Your task to perform on an android device: install app "Reddit" Image 0: 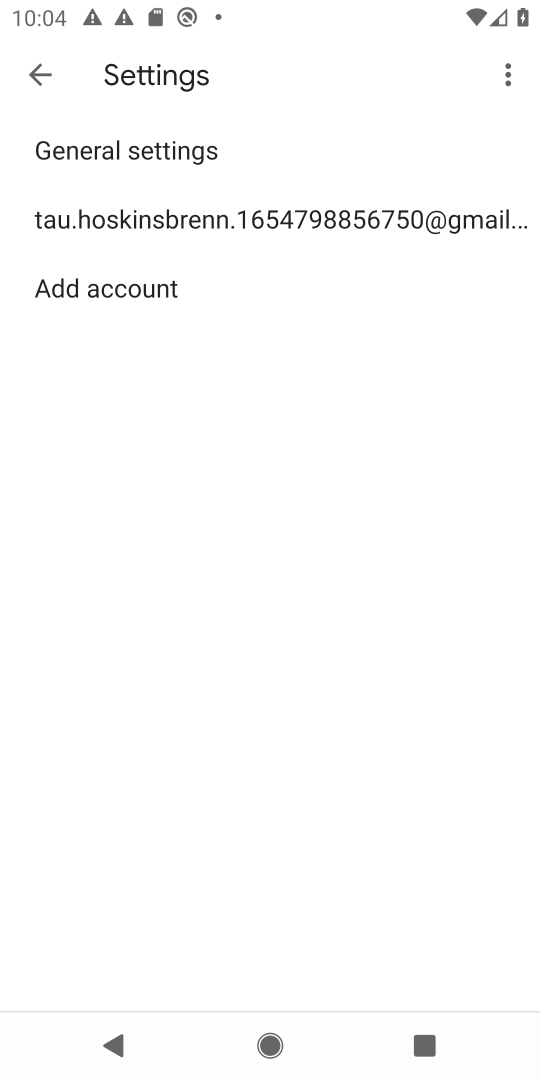
Step 0: press home button
Your task to perform on an android device: install app "Reddit" Image 1: 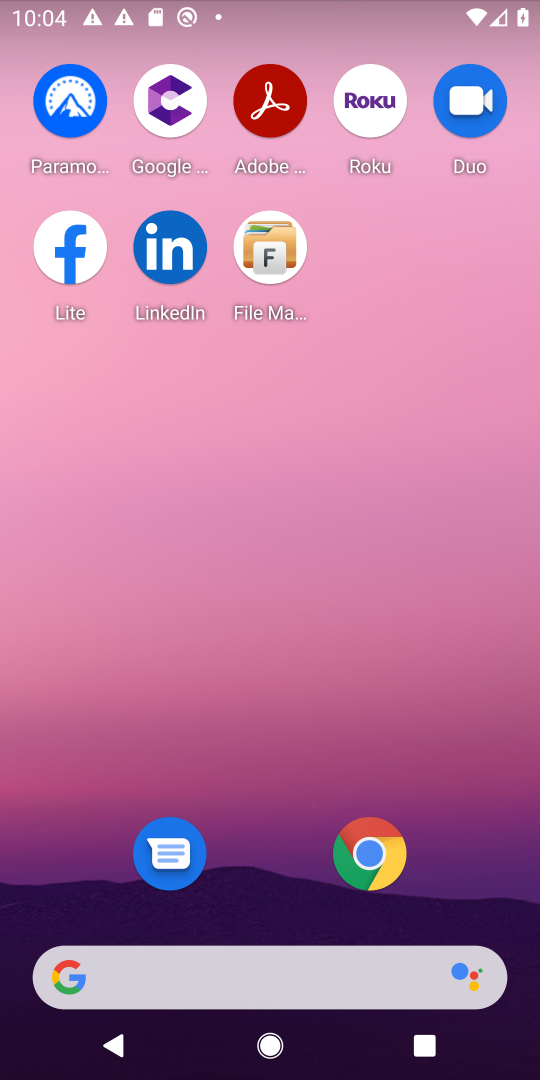
Step 1: drag from (242, 861) to (251, 266)
Your task to perform on an android device: install app "Reddit" Image 2: 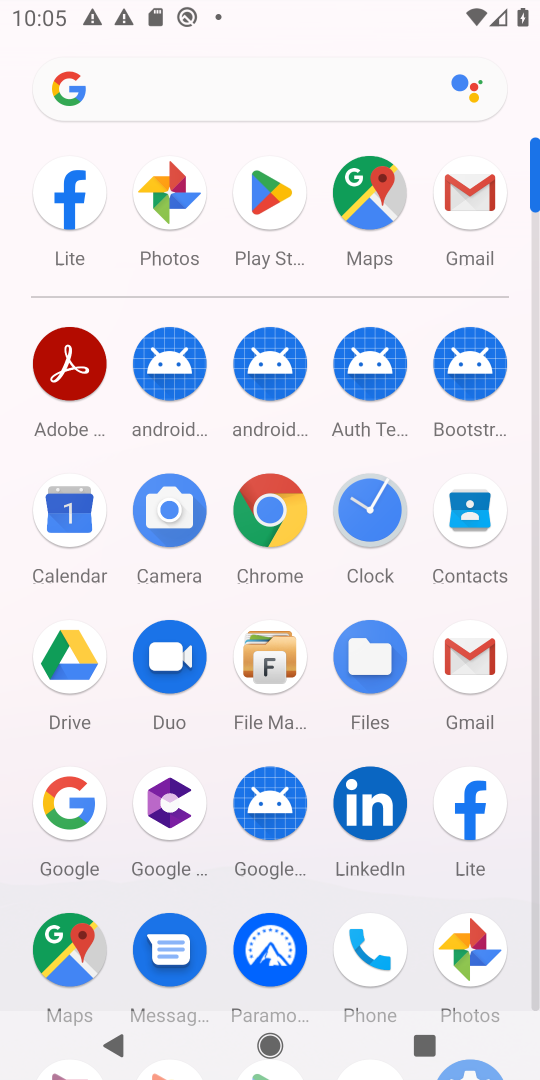
Step 2: drag from (218, 871) to (188, 136)
Your task to perform on an android device: install app "Reddit" Image 3: 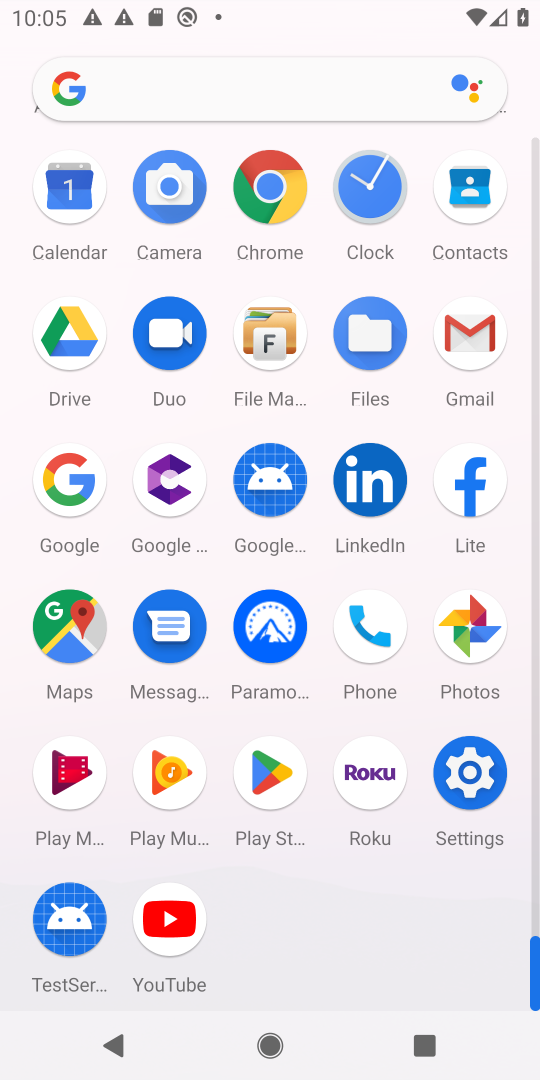
Step 3: click (265, 783)
Your task to perform on an android device: install app "Reddit" Image 4: 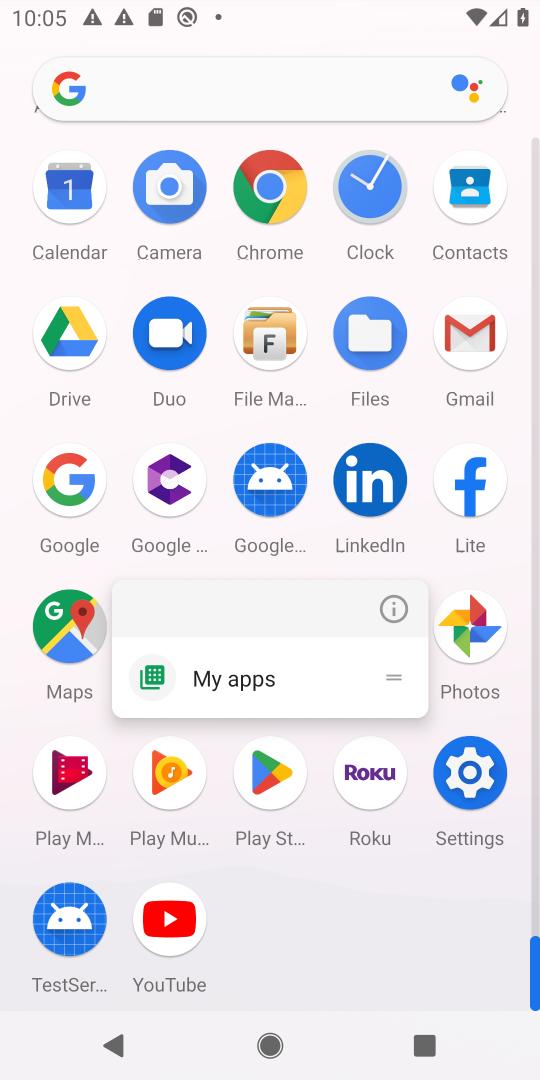
Step 4: click (402, 606)
Your task to perform on an android device: install app "Reddit" Image 5: 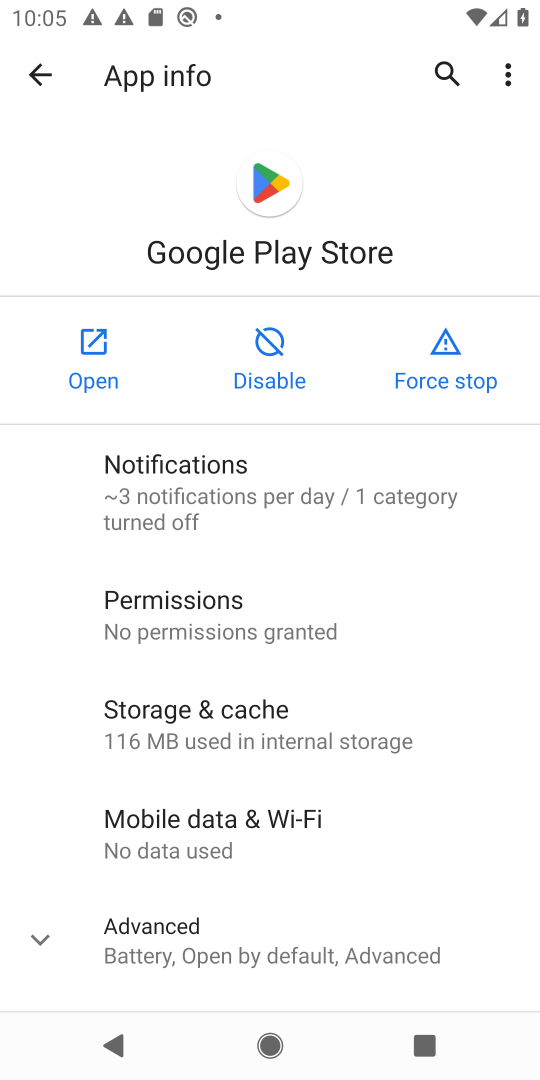
Step 5: click (80, 330)
Your task to perform on an android device: install app "Reddit" Image 6: 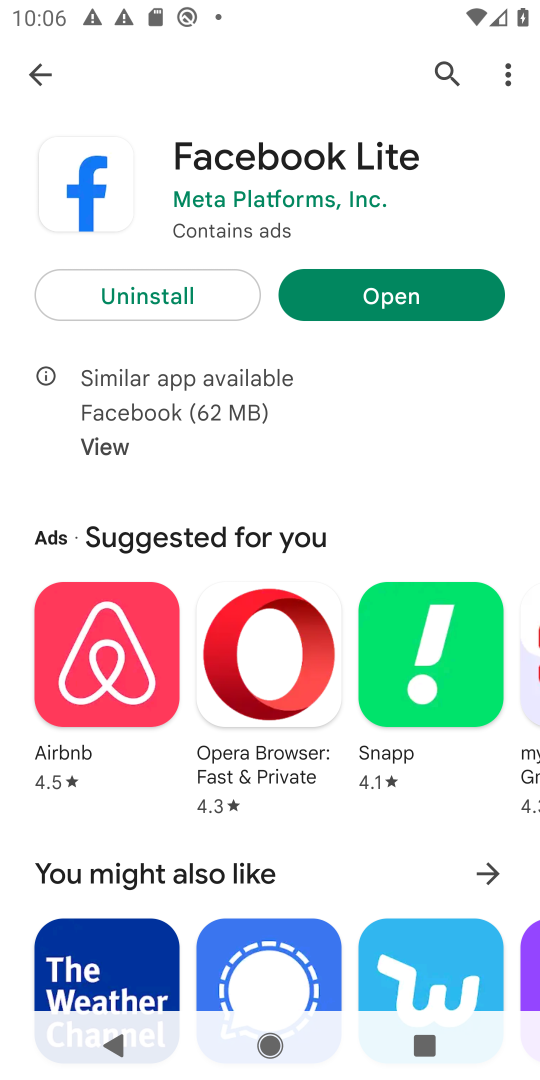
Step 6: drag from (309, 571) to (288, 881)
Your task to perform on an android device: install app "Reddit" Image 7: 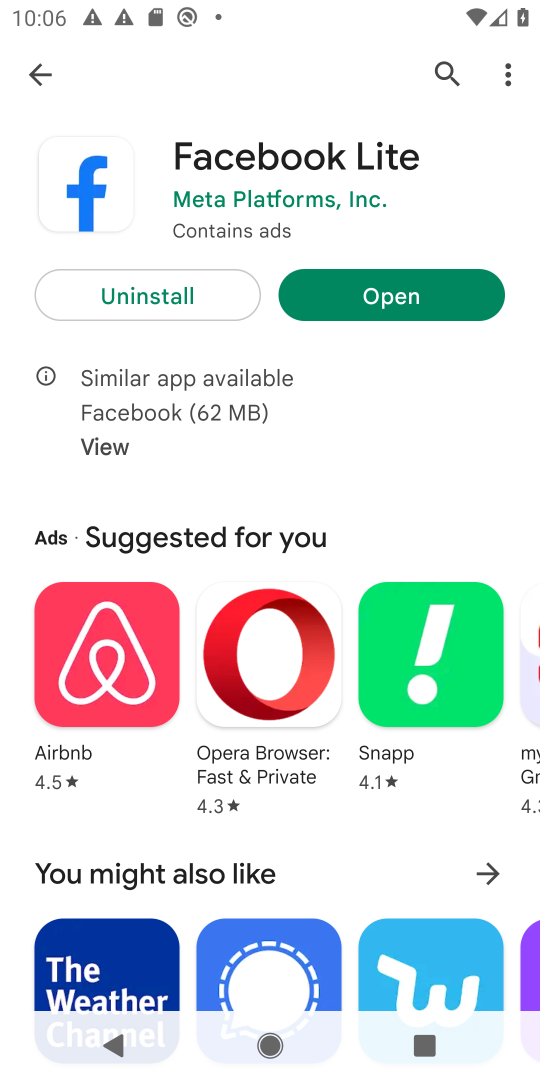
Step 7: click (443, 83)
Your task to perform on an android device: install app "Reddit" Image 8: 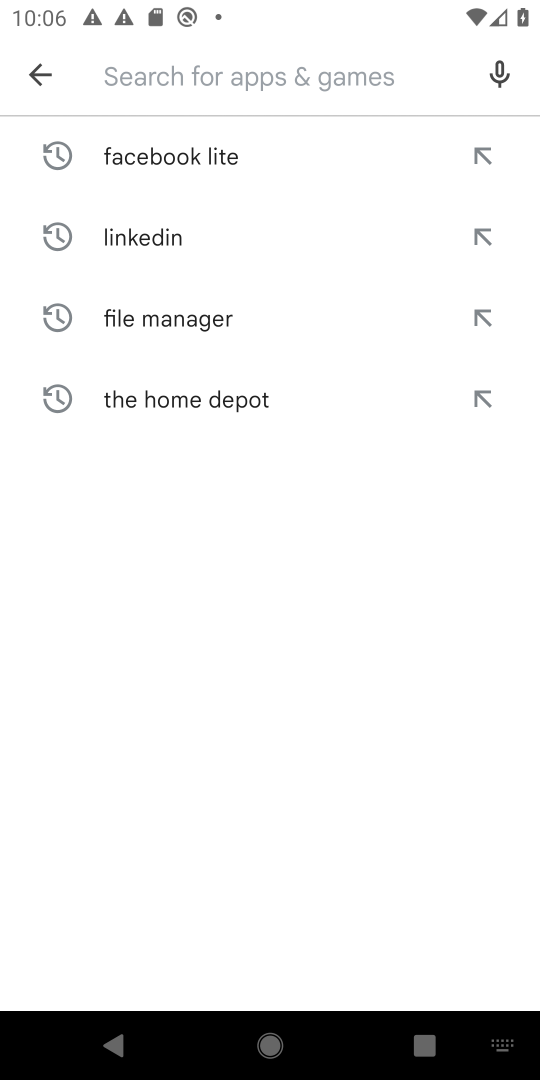
Step 8: click (186, 87)
Your task to perform on an android device: install app "Reddit" Image 9: 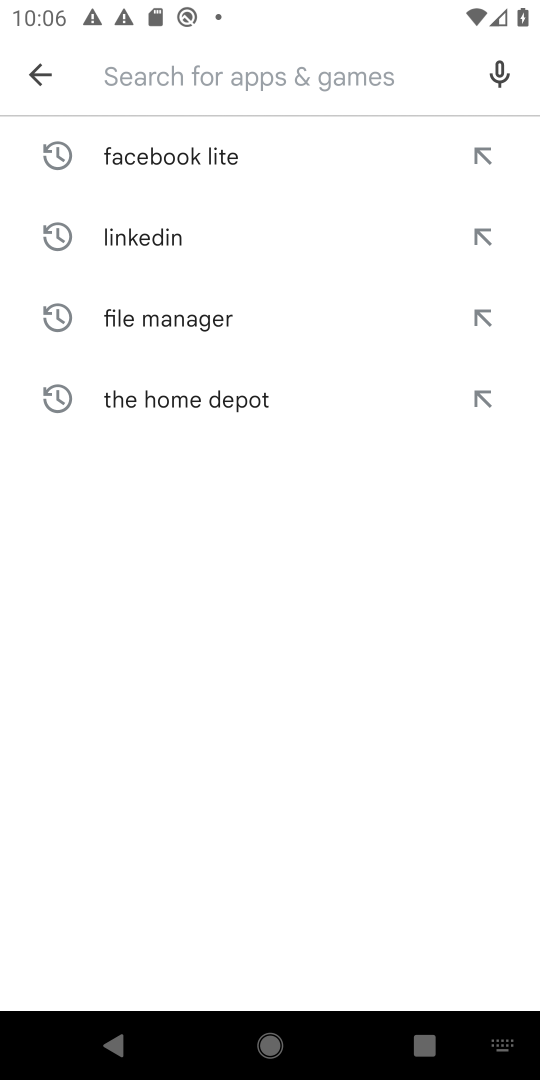
Step 9: type "Reddit"
Your task to perform on an android device: install app "Reddit" Image 10: 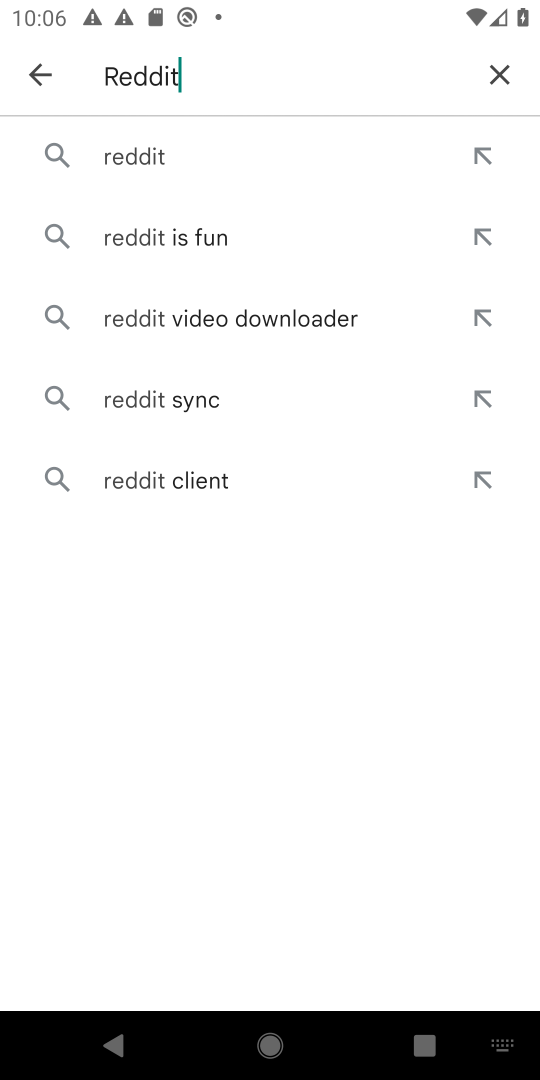
Step 10: click (155, 142)
Your task to perform on an android device: install app "Reddit" Image 11: 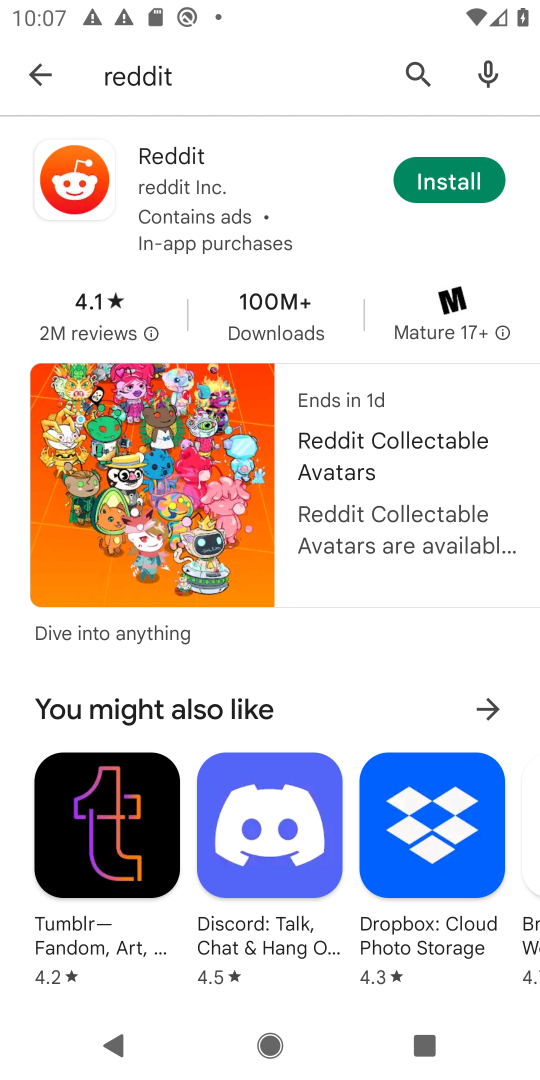
Step 11: click (458, 199)
Your task to perform on an android device: install app "Reddit" Image 12: 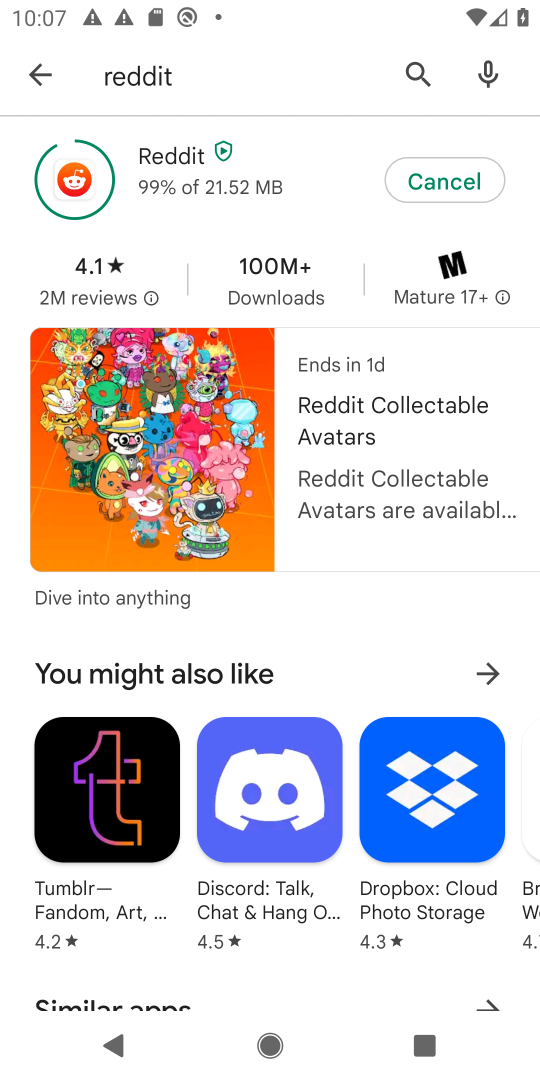
Step 12: click (176, 155)
Your task to perform on an android device: install app "Reddit" Image 13: 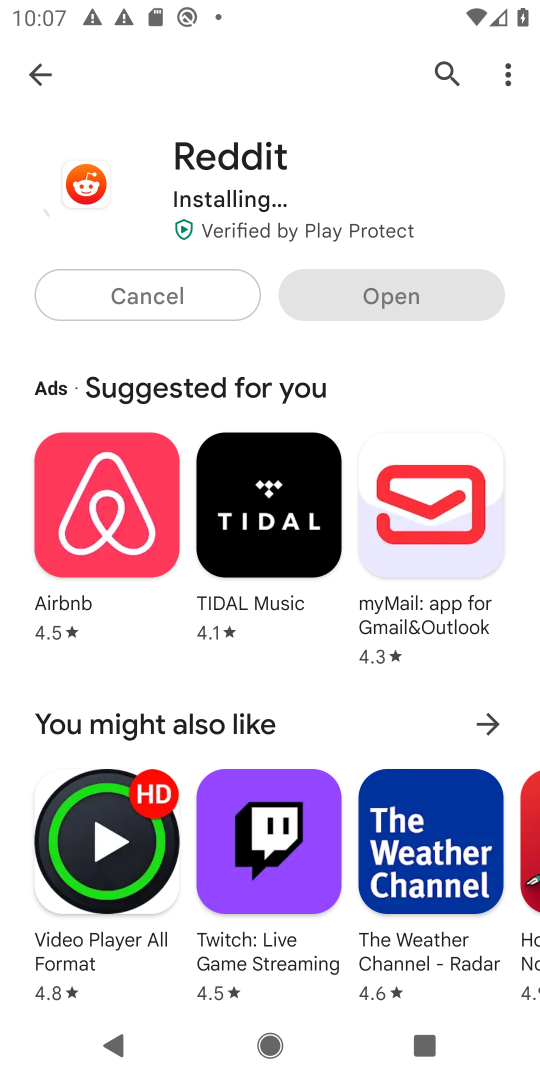
Step 13: click (220, 157)
Your task to perform on an android device: install app "Reddit" Image 14: 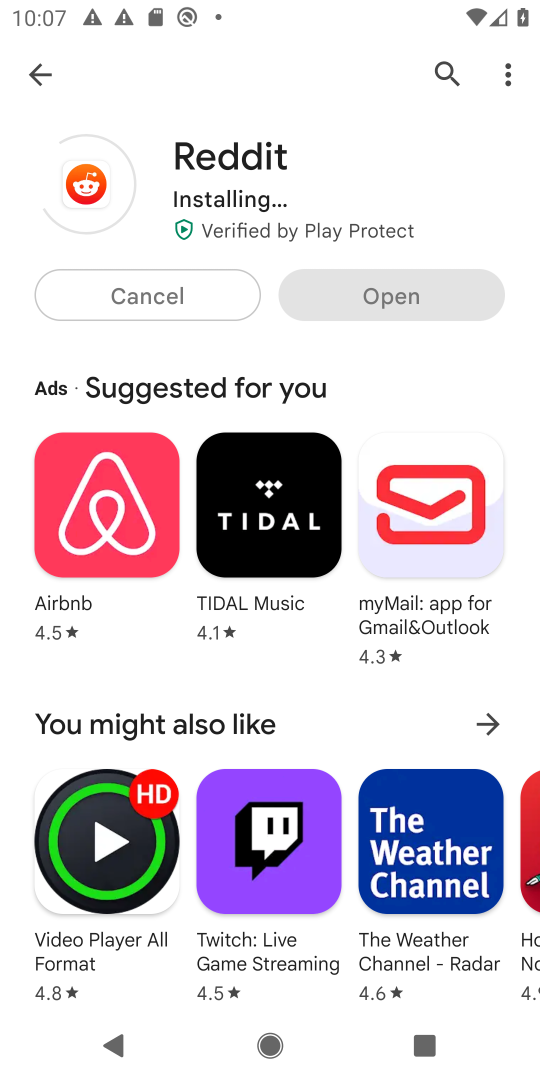
Step 14: click (232, 188)
Your task to perform on an android device: install app "Reddit" Image 15: 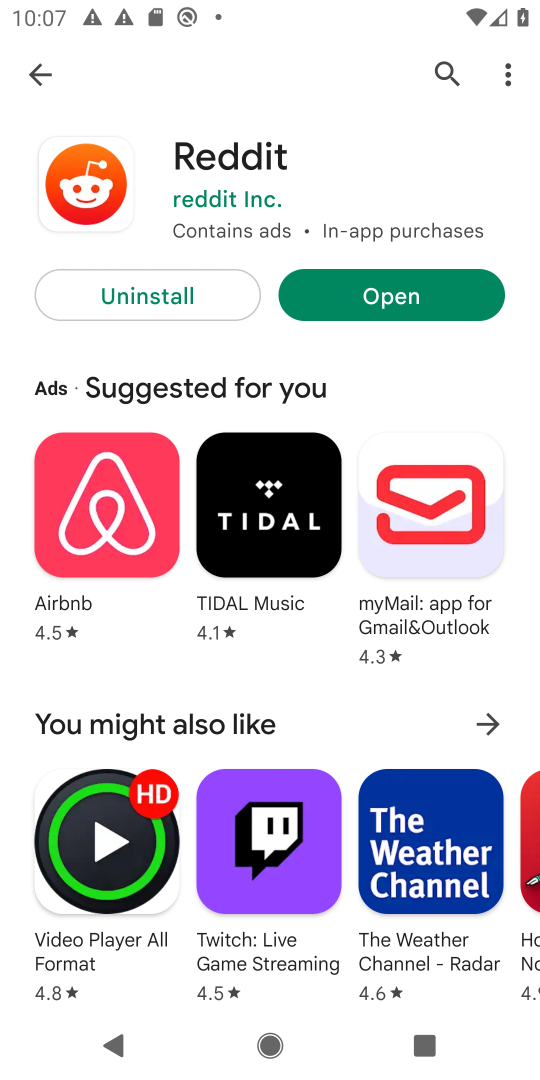
Step 15: task complete